Your task to perform on an android device: turn on notifications settings in the gmail app Image 0: 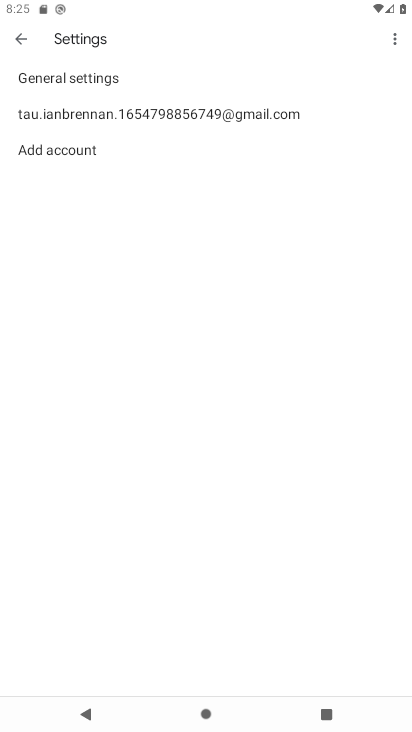
Step 0: press home button
Your task to perform on an android device: turn on notifications settings in the gmail app Image 1: 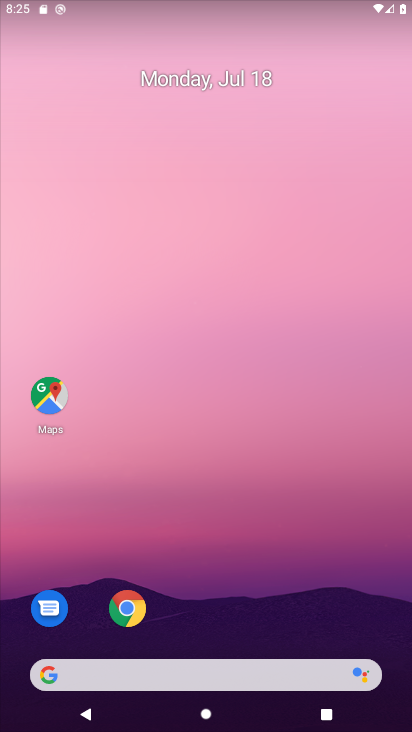
Step 1: drag from (184, 672) to (254, 57)
Your task to perform on an android device: turn on notifications settings in the gmail app Image 2: 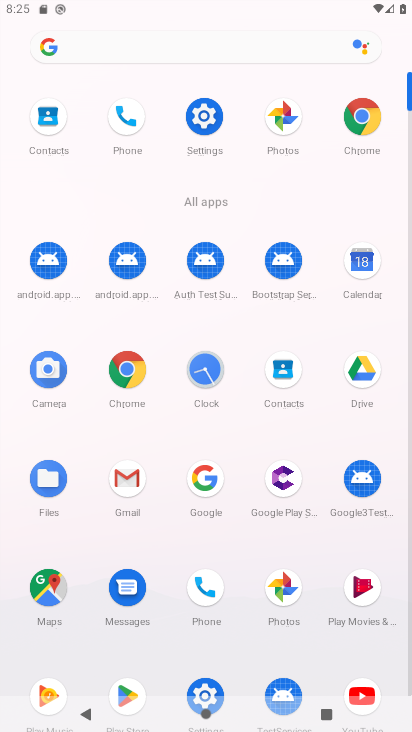
Step 2: click (124, 477)
Your task to perform on an android device: turn on notifications settings in the gmail app Image 3: 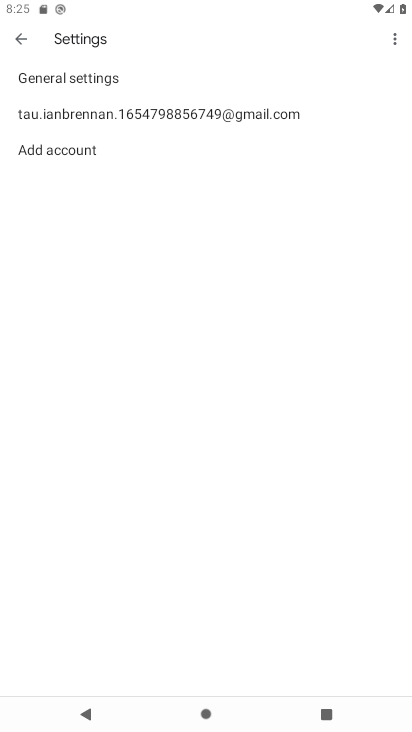
Step 3: click (240, 118)
Your task to perform on an android device: turn on notifications settings in the gmail app Image 4: 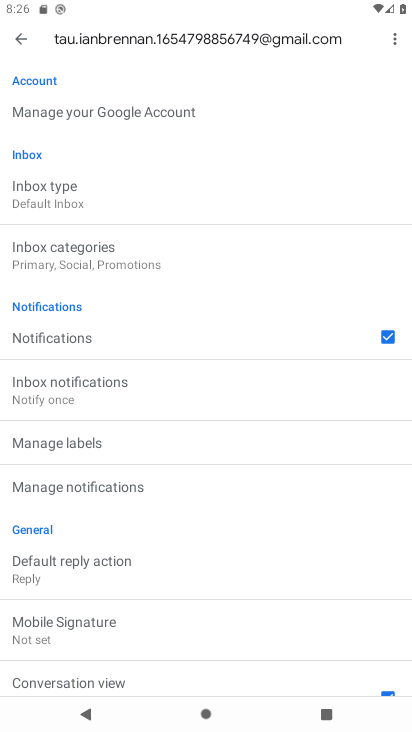
Step 4: click (82, 484)
Your task to perform on an android device: turn on notifications settings in the gmail app Image 5: 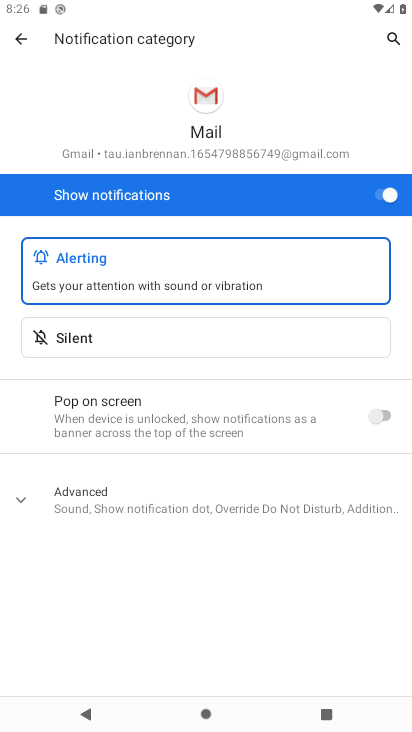
Step 5: task complete